Your task to perform on an android device: Open internet settings Image 0: 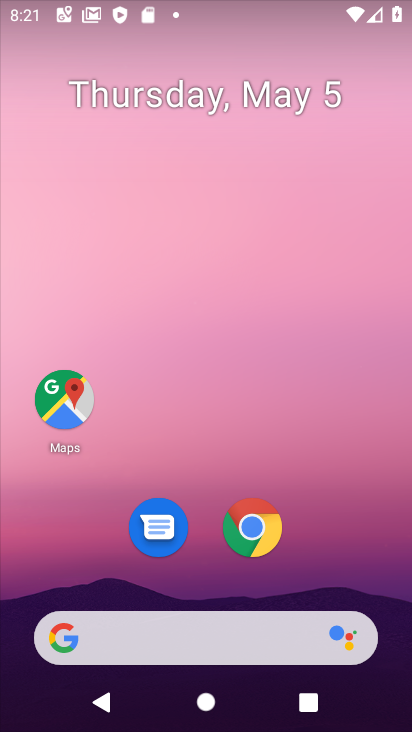
Step 0: drag from (266, 709) to (294, 5)
Your task to perform on an android device: Open internet settings Image 1: 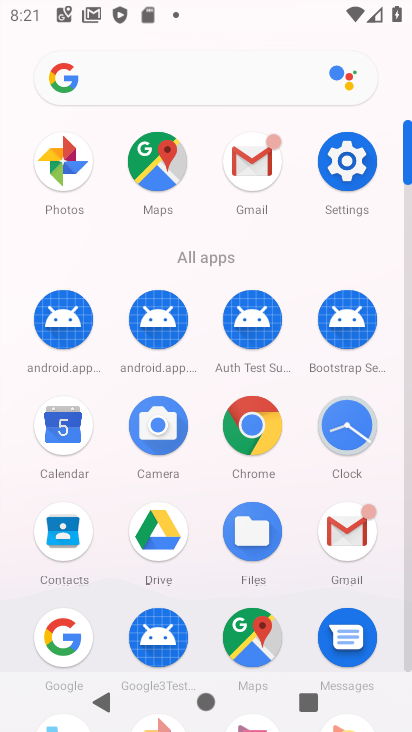
Step 1: click (343, 162)
Your task to perform on an android device: Open internet settings Image 2: 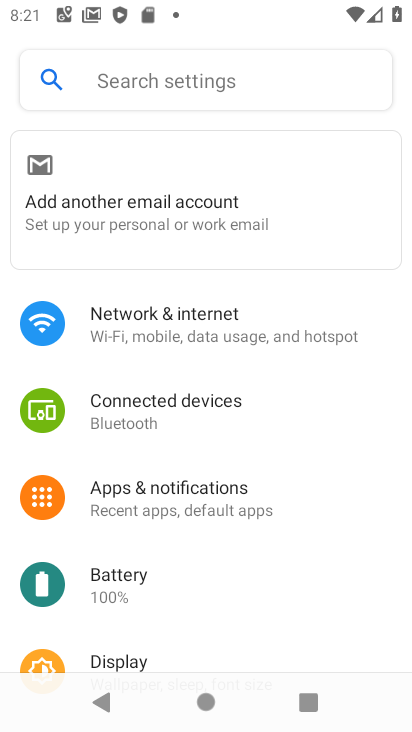
Step 2: click (265, 321)
Your task to perform on an android device: Open internet settings Image 3: 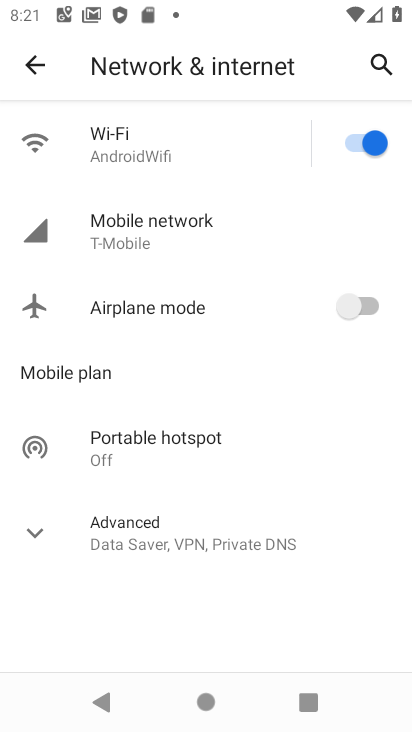
Step 3: task complete